Your task to perform on an android device: Is it going to rain this weekend? Image 0: 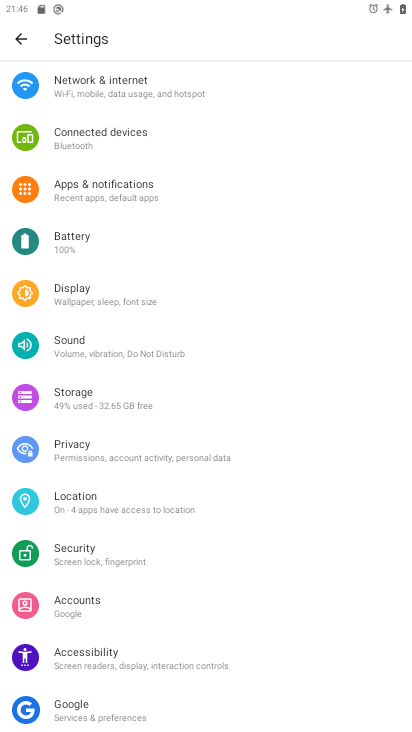
Step 0: press home button
Your task to perform on an android device: Is it going to rain this weekend? Image 1: 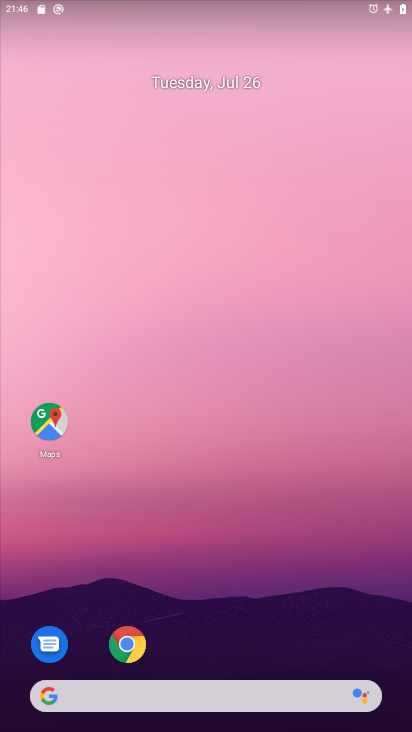
Step 1: click (127, 650)
Your task to perform on an android device: Is it going to rain this weekend? Image 2: 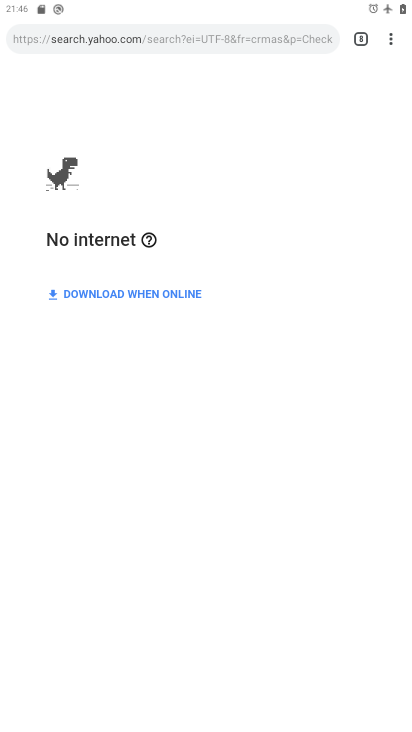
Step 2: click (402, 36)
Your task to perform on an android device: Is it going to rain this weekend? Image 3: 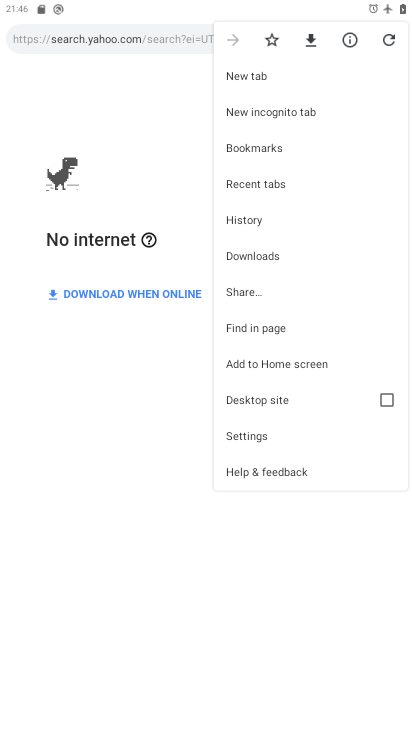
Step 3: click (269, 70)
Your task to perform on an android device: Is it going to rain this weekend? Image 4: 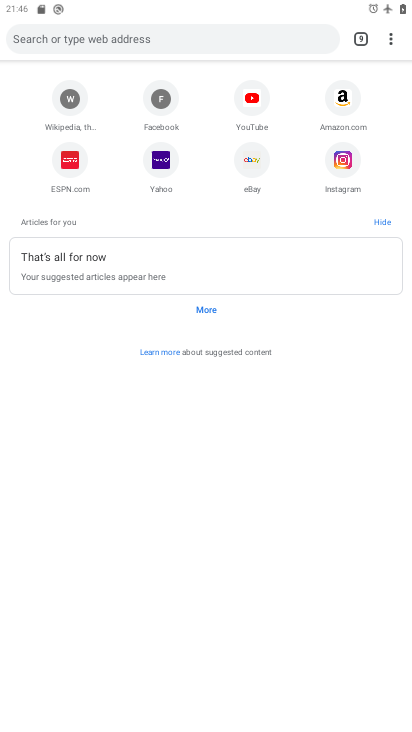
Step 4: click (201, 25)
Your task to perform on an android device: Is it going to rain this weekend? Image 5: 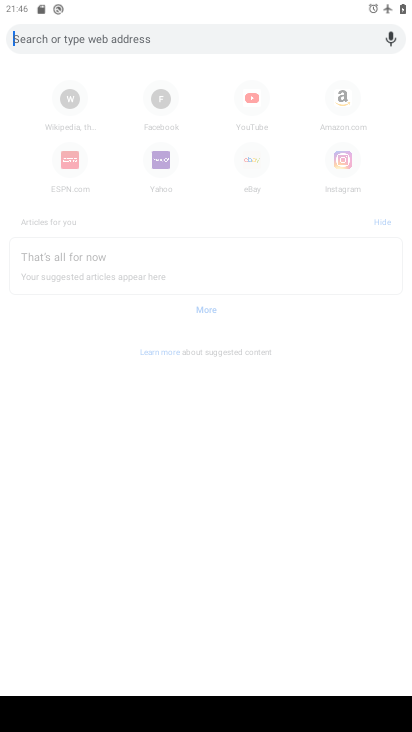
Step 5: type "Is it going to rain this weekend? "
Your task to perform on an android device: Is it going to rain this weekend? Image 6: 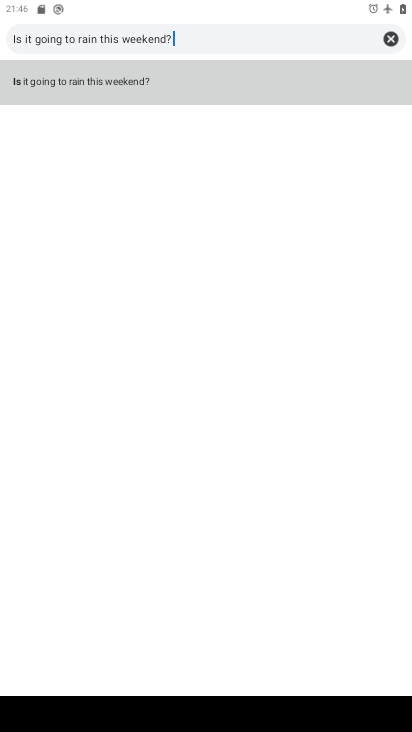
Step 6: click (151, 77)
Your task to perform on an android device: Is it going to rain this weekend? Image 7: 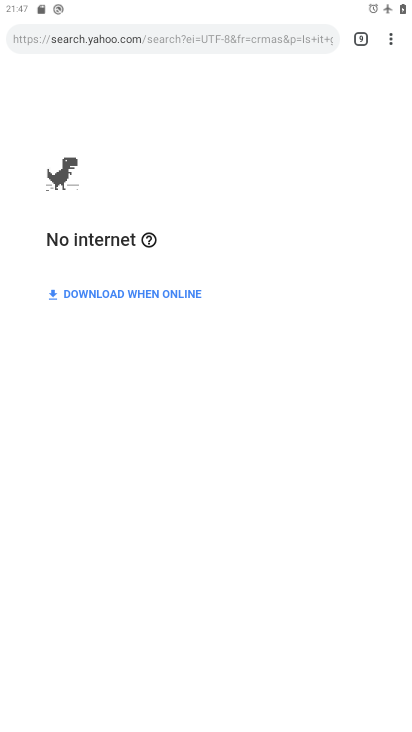
Step 7: task complete